Your task to perform on an android device: Show me recent news Image 0: 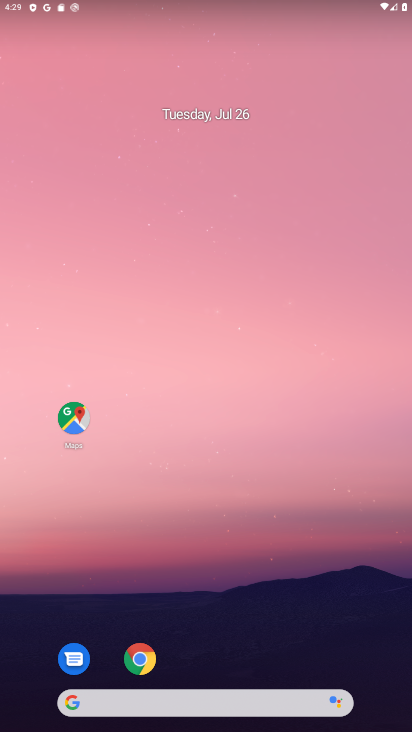
Step 0: drag from (8, 295) to (396, 264)
Your task to perform on an android device: Show me recent news Image 1: 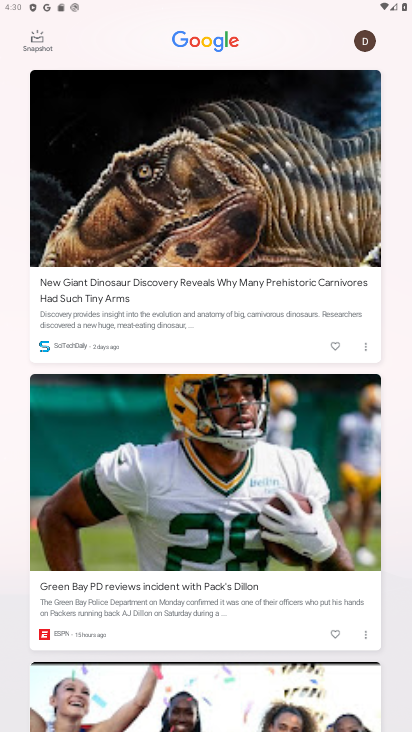
Step 1: task complete